Your task to perform on an android device: Open display settings Image 0: 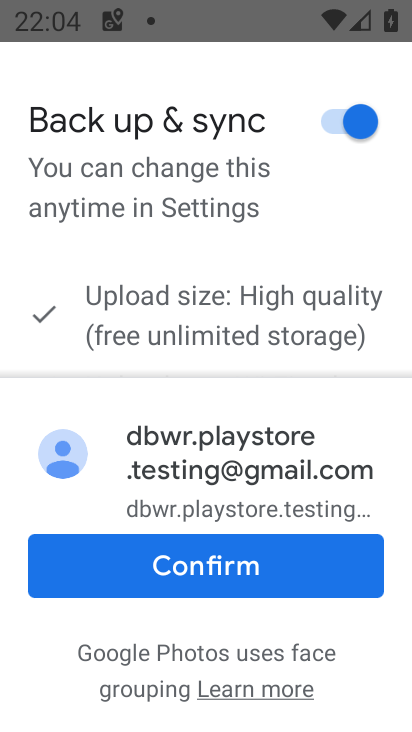
Step 0: press home button
Your task to perform on an android device: Open display settings Image 1: 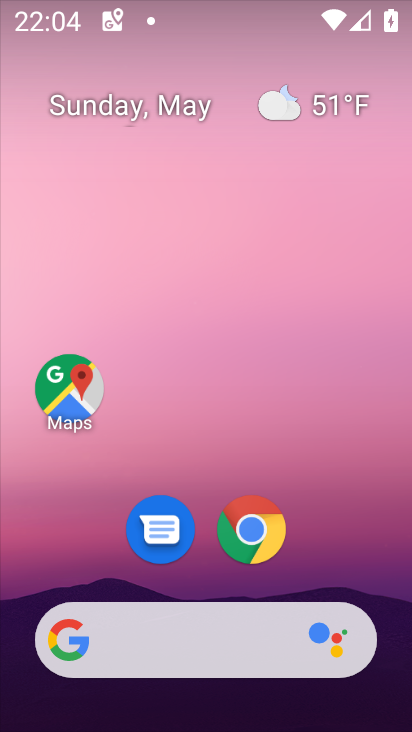
Step 1: drag from (345, 716) to (220, 34)
Your task to perform on an android device: Open display settings Image 2: 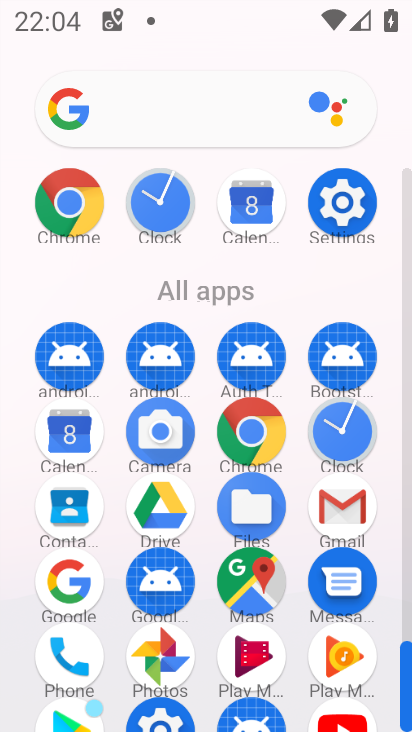
Step 2: drag from (282, 578) to (277, 263)
Your task to perform on an android device: Open display settings Image 3: 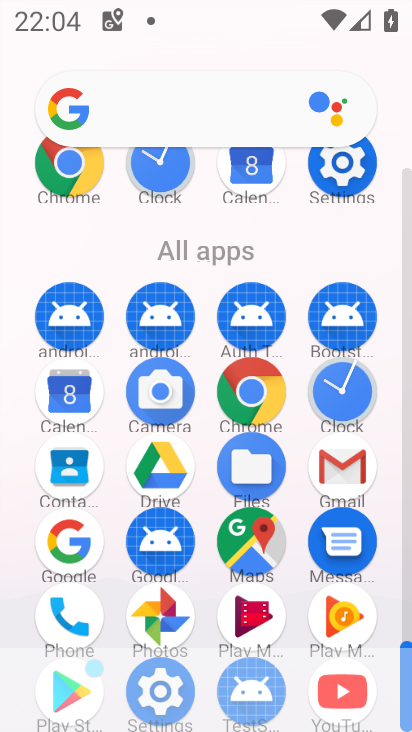
Step 3: click (168, 683)
Your task to perform on an android device: Open display settings Image 4: 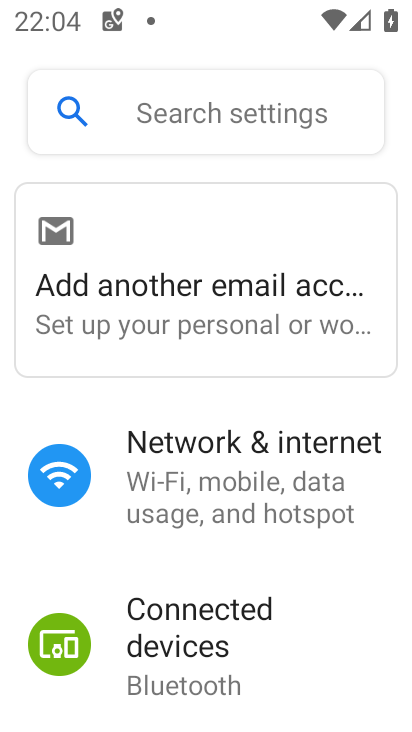
Step 4: drag from (270, 694) to (268, 306)
Your task to perform on an android device: Open display settings Image 5: 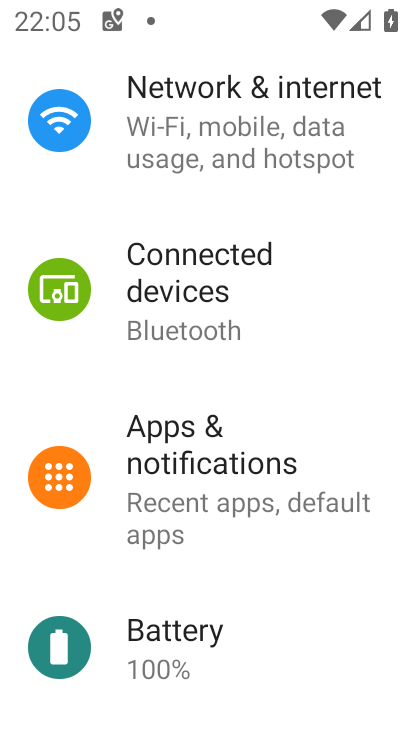
Step 5: drag from (312, 628) to (310, 335)
Your task to perform on an android device: Open display settings Image 6: 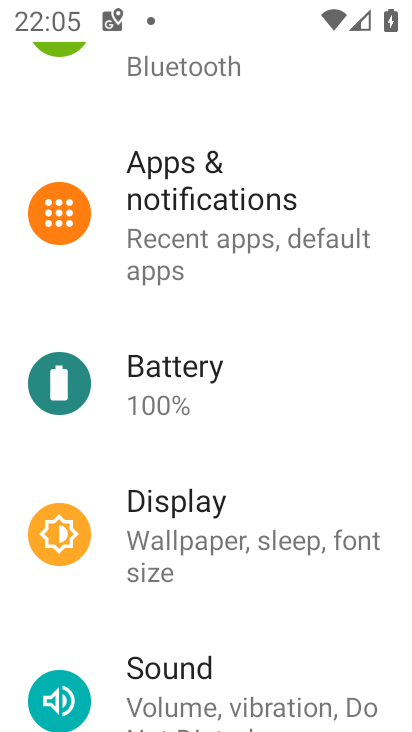
Step 6: click (282, 517)
Your task to perform on an android device: Open display settings Image 7: 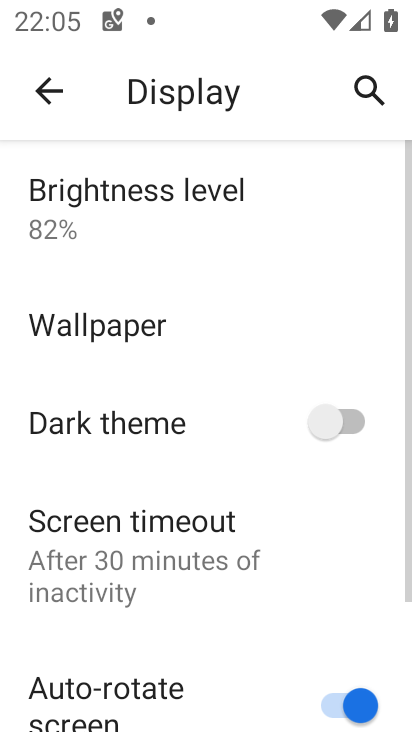
Step 7: task complete